Your task to perform on an android device: Go to Maps Image 0: 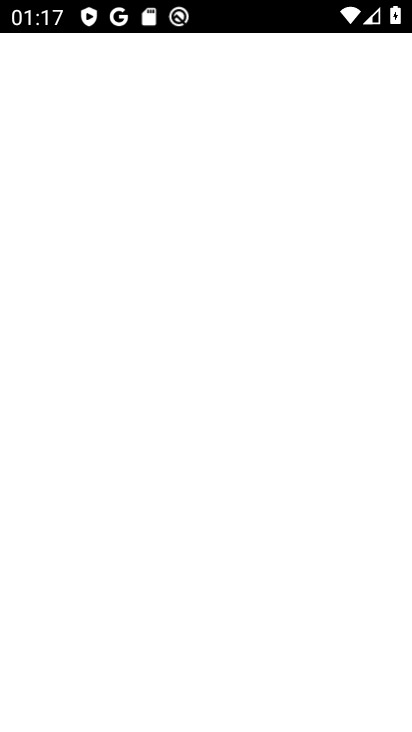
Step 0: drag from (233, 615) to (320, 42)
Your task to perform on an android device: Go to Maps Image 1: 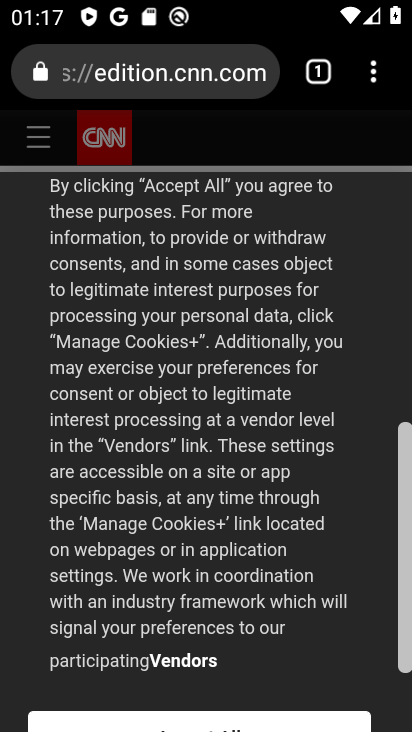
Step 1: press home button
Your task to perform on an android device: Go to Maps Image 2: 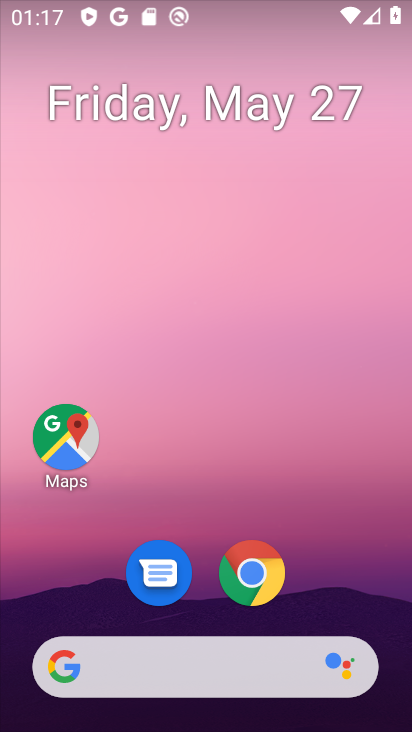
Step 2: drag from (204, 632) to (199, 23)
Your task to perform on an android device: Go to Maps Image 3: 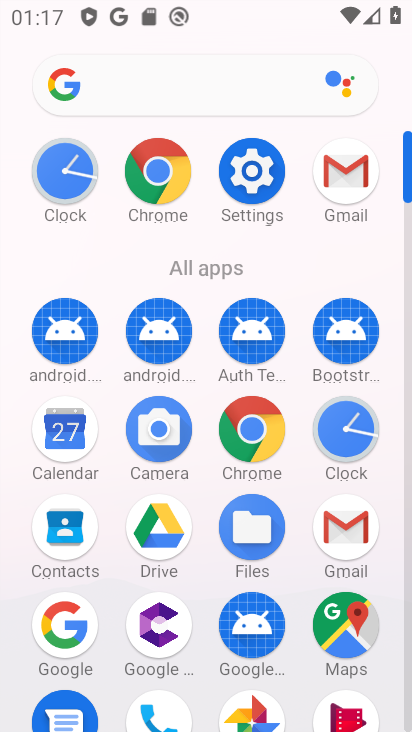
Step 3: click (328, 621)
Your task to perform on an android device: Go to Maps Image 4: 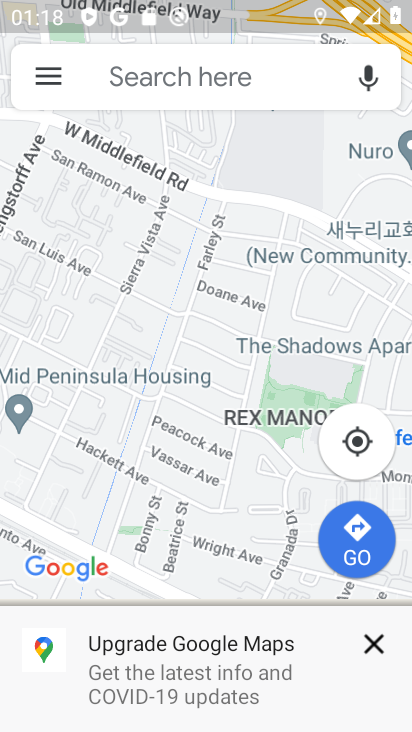
Step 4: task complete